Your task to perform on an android device: turn off notifications settings in the gmail app Image 0: 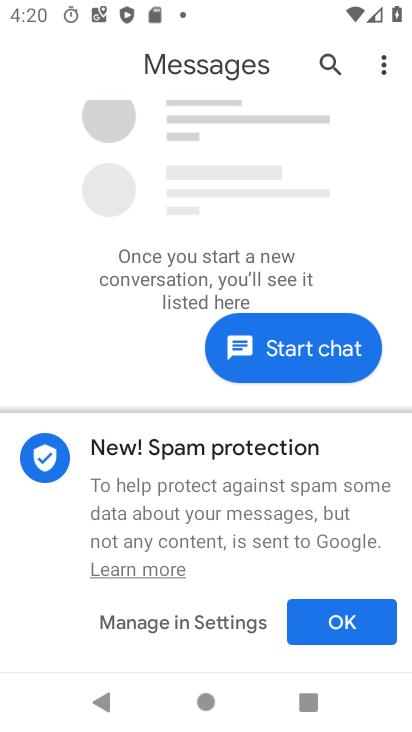
Step 0: press home button
Your task to perform on an android device: turn off notifications settings in the gmail app Image 1: 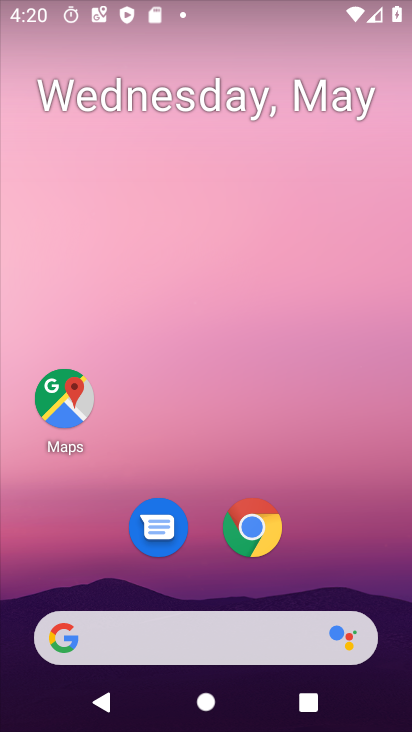
Step 1: drag from (327, 550) to (315, 2)
Your task to perform on an android device: turn off notifications settings in the gmail app Image 2: 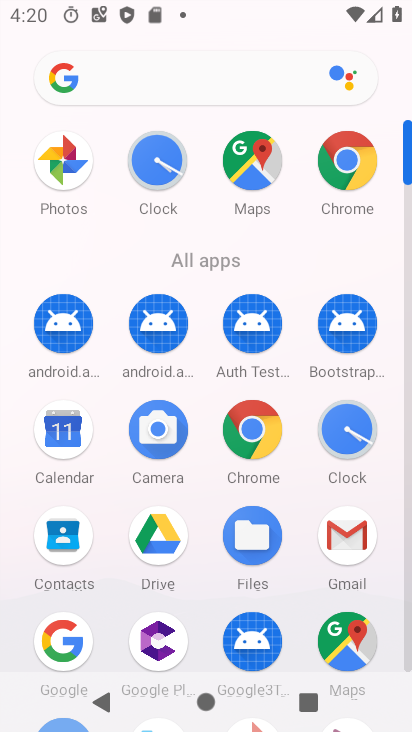
Step 2: click (347, 523)
Your task to perform on an android device: turn off notifications settings in the gmail app Image 3: 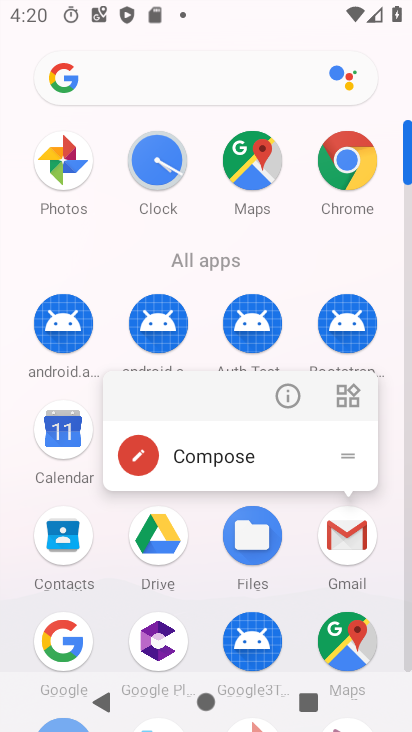
Step 3: click (287, 394)
Your task to perform on an android device: turn off notifications settings in the gmail app Image 4: 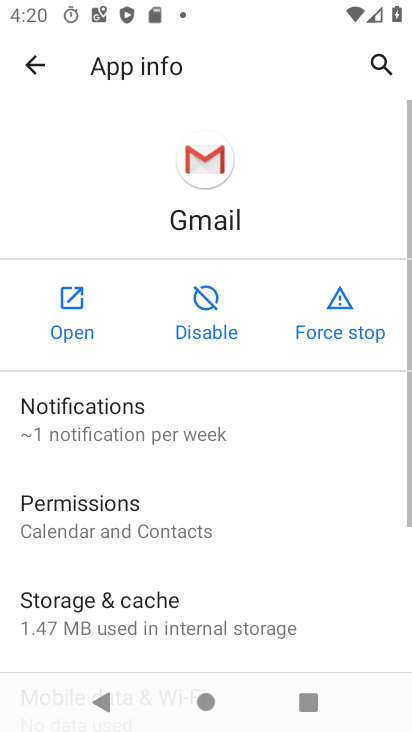
Step 4: click (133, 415)
Your task to perform on an android device: turn off notifications settings in the gmail app Image 5: 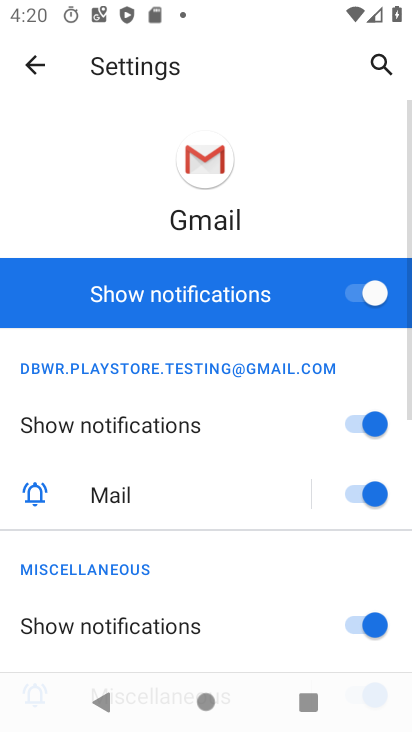
Step 5: click (363, 290)
Your task to perform on an android device: turn off notifications settings in the gmail app Image 6: 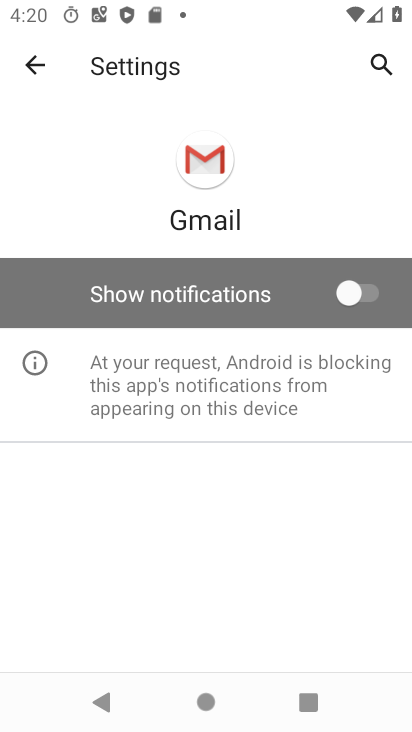
Step 6: task complete